Your task to perform on an android device: open wifi settings Image 0: 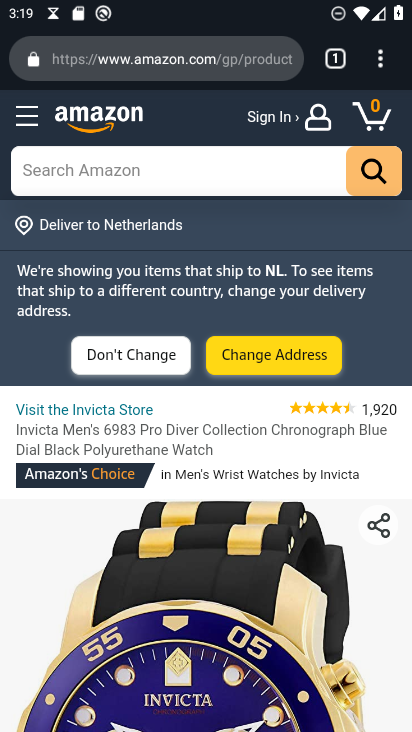
Step 0: press home button
Your task to perform on an android device: open wifi settings Image 1: 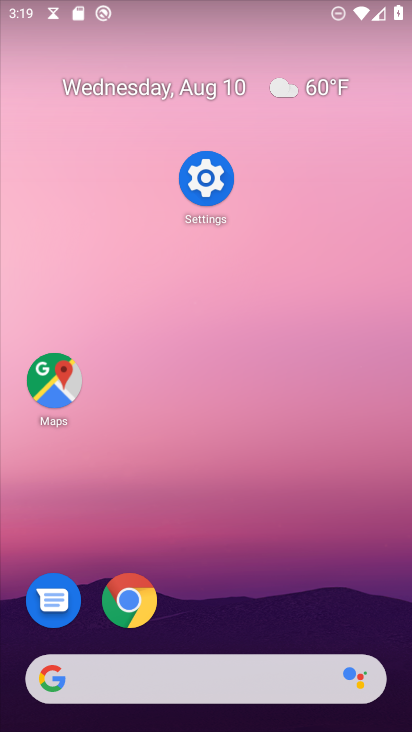
Step 1: click (199, 177)
Your task to perform on an android device: open wifi settings Image 2: 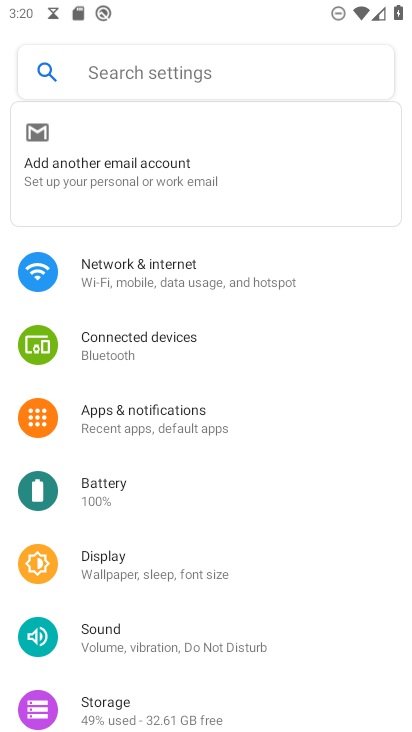
Step 2: click (162, 266)
Your task to perform on an android device: open wifi settings Image 3: 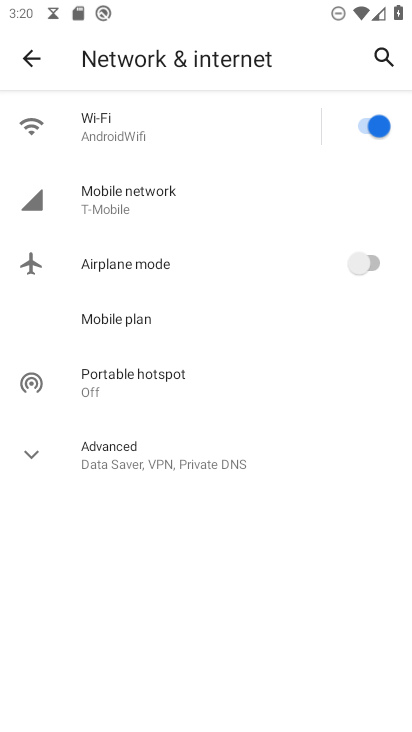
Step 3: click (103, 139)
Your task to perform on an android device: open wifi settings Image 4: 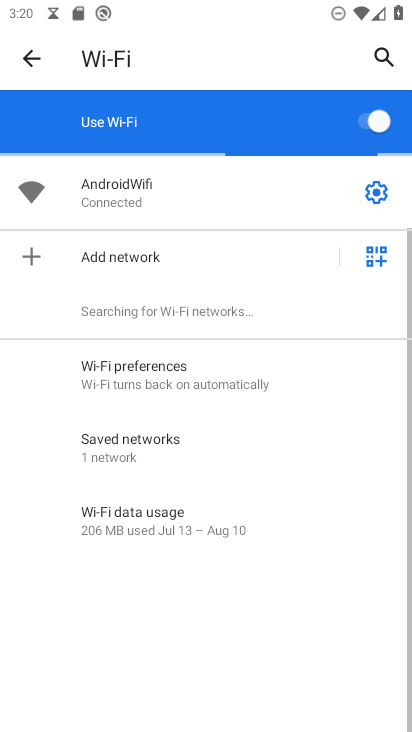
Step 4: click (101, 205)
Your task to perform on an android device: open wifi settings Image 5: 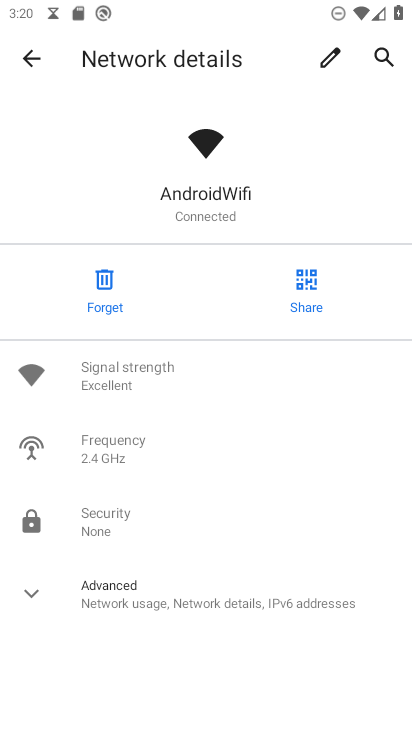
Step 5: task complete